Your task to perform on an android device: Go to Yahoo.com Image 0: 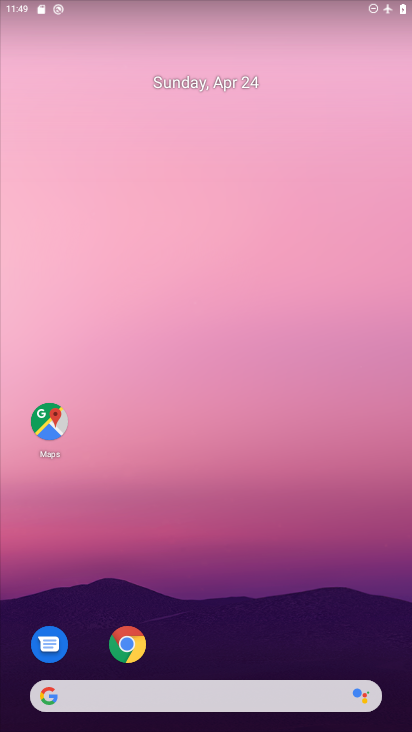
Step 0: click (126, 645)
Your task to perform on an android device: Go to Yahoo.com Image 1: 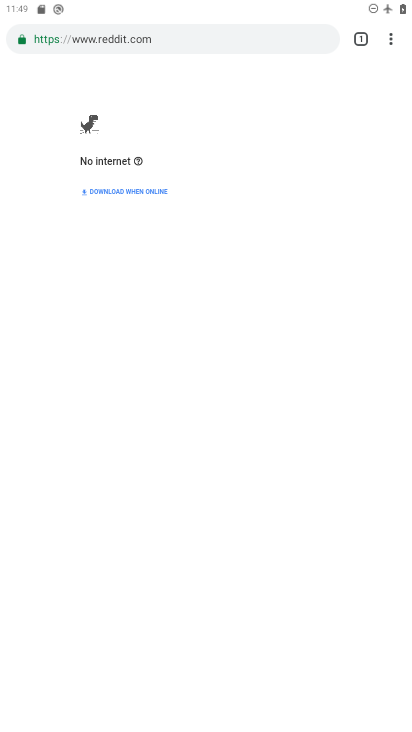
Step 1: click (189, 33)
Your task to perform on an android device: Go to Yahoo.com Image 2: 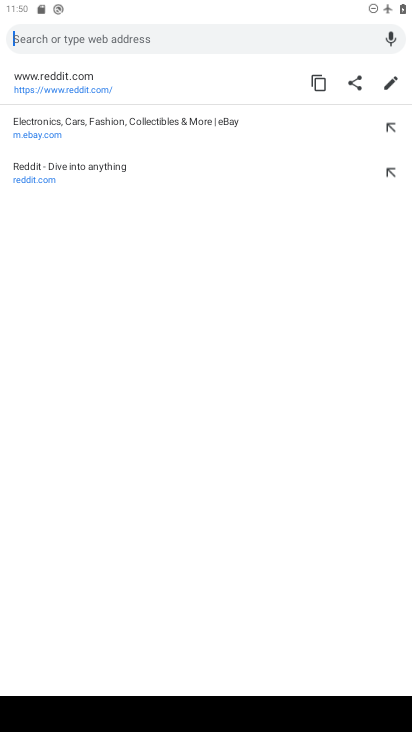
Step 2: type "yahoo.com"
Your task to perform on an android device: Go to Yahoo.com Image 3: 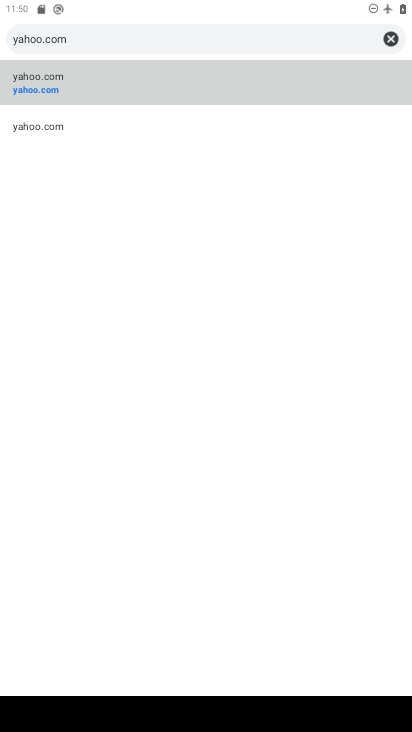
Step 3: click (62, 88)
Your task to perform on an android device: Go to Yahoo.com Image 4: 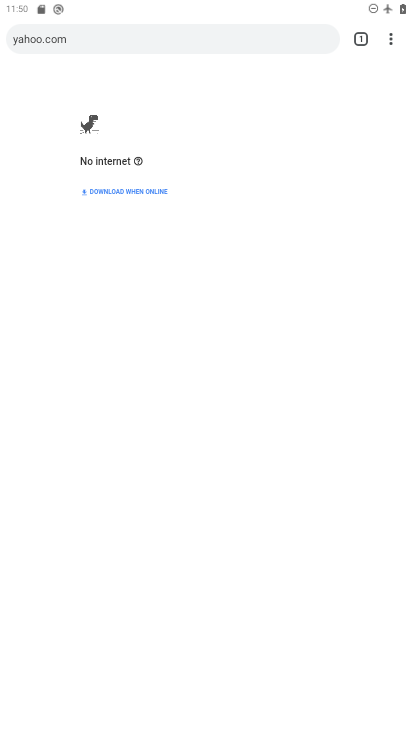
Step 4: task complete